Your task to perform on an android device: change the clock display to show seconds Image 0: 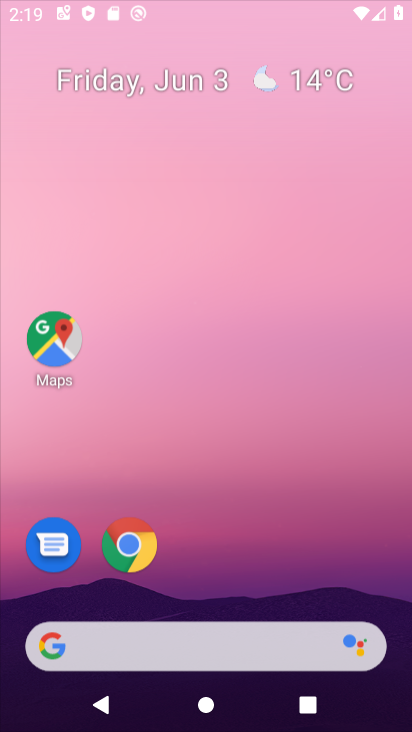
Step 0: drag from (326, 535) to (14, 535)
Your task to perform on an android device: change the clock display to show seconds Image 1: 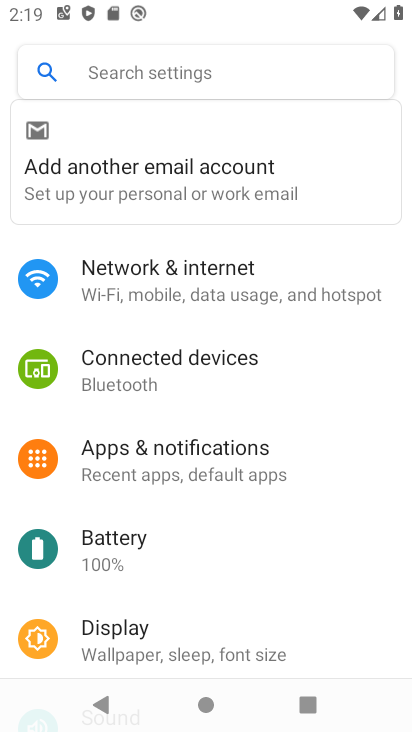
Step 1: press home button
Your task to perform on an android device: change the clock display to show seconds Image 2: 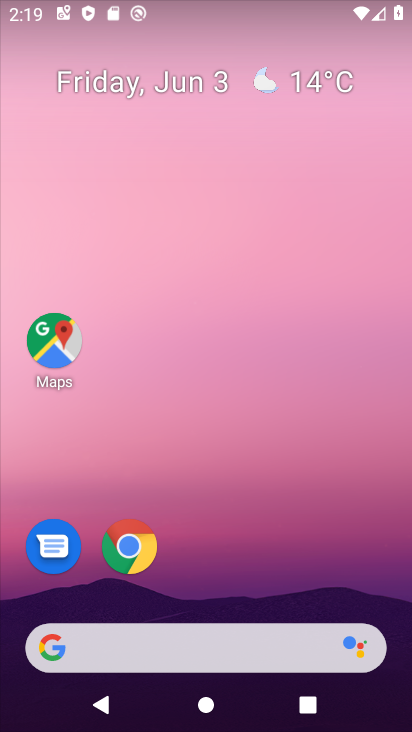
Step 2: drag from (288, 515) to (353, 1)
Your task to perform on an android device: change the clock display to show seconds Image 3: 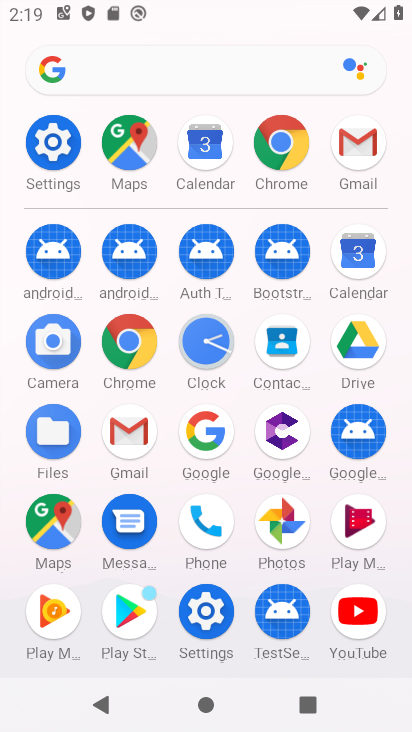
Step 3: click (209, 333)
Your task to perform on an android device: change the clock display to show seconds Image 4: 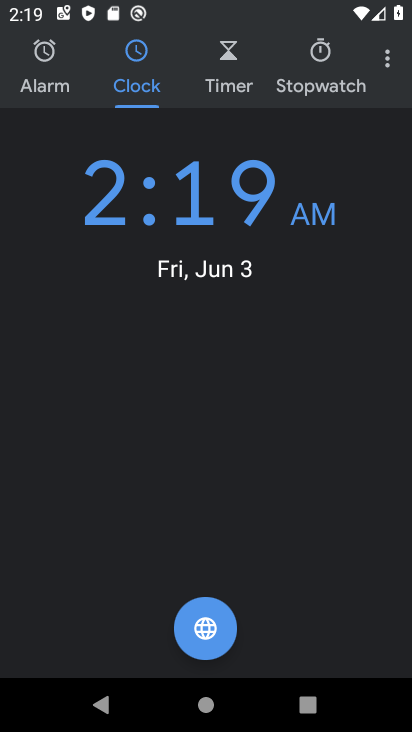
Step 4: click (383, 63)
Your task to perform on an android device: change the clock display to show seconds Image 5: 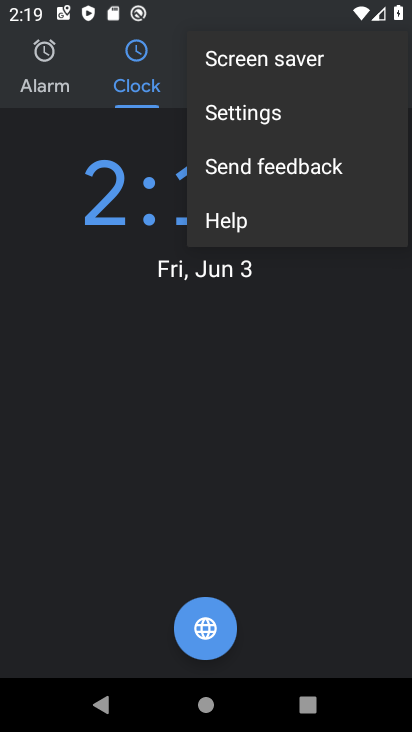
Step 5: click (239, 130)
Your task to perform on an android device: change the clock display to show seconds Image 6: 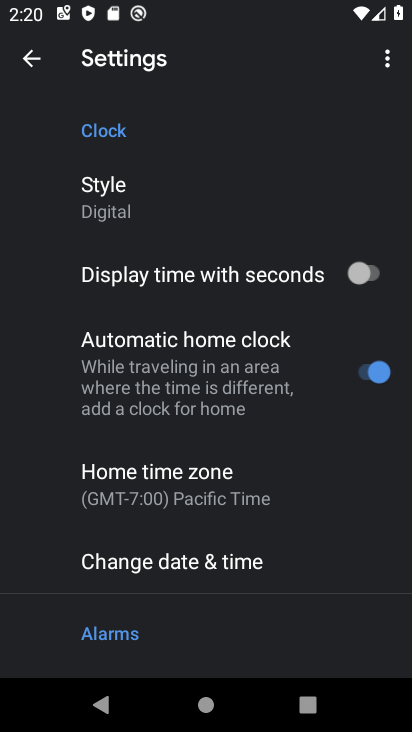
Step 6: click (368, 291)
Your task to perform on an android device: change the clock display to show seconds Image 7: 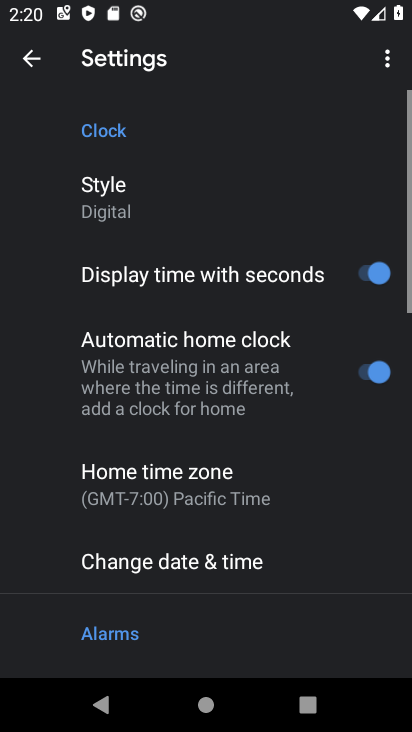
Step 7: task complete